Your task to perform on an android device: What's on my calendar tomorrow? Image 0: 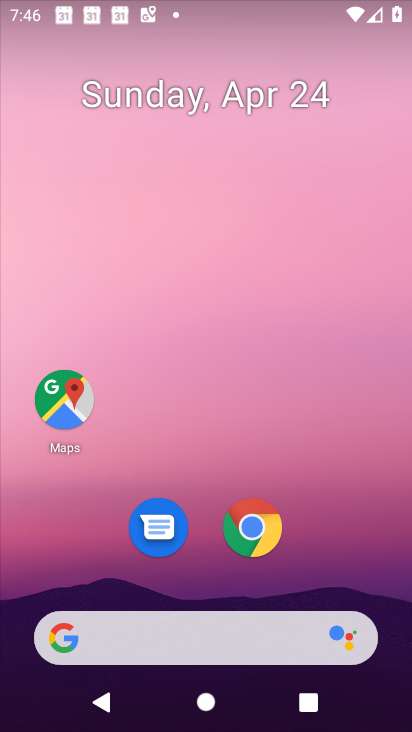
Step 0: drag from (364, 568) to (282, 74)
Your task to perform on an android device: What's on my calendar tomorrow? Image 1: 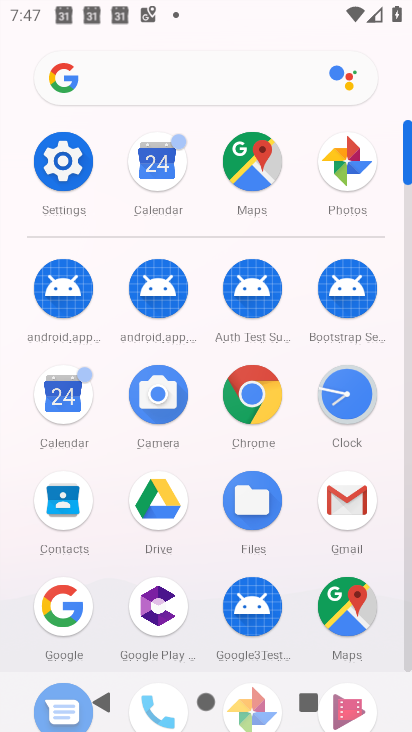
Step 1: click (70, 378)
Your task to perform on an android device: What's on my calendar tomorrow? Image 2: 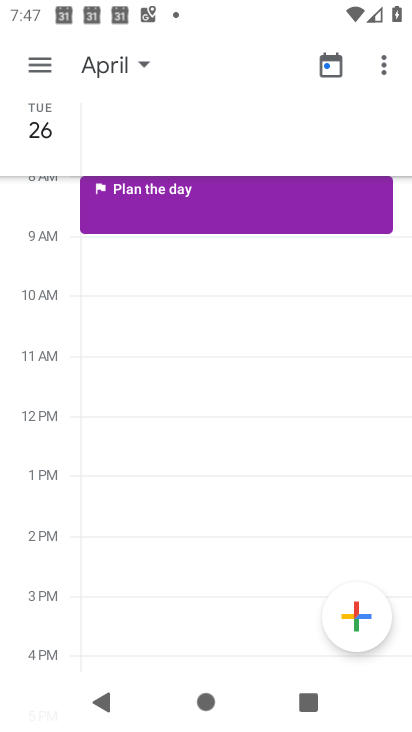
Step 2: click (116, 55)
Your task to perform on an android device: What's on my calendar tomorrow? Image 3: 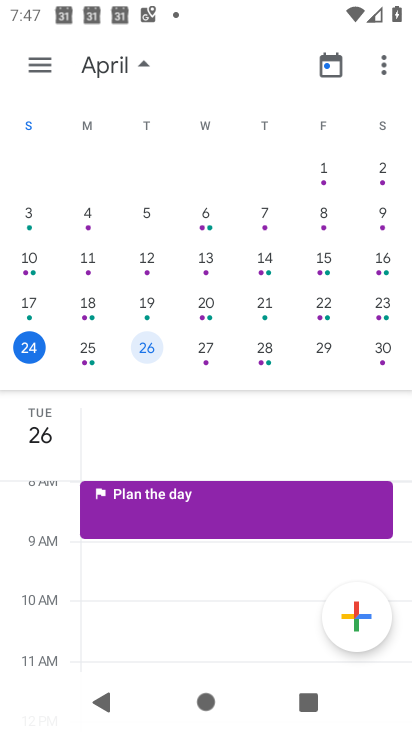
Step 3: click (135, 351)
Your task to perform on an android device: What's on my calendar tomorrow? Image 4: 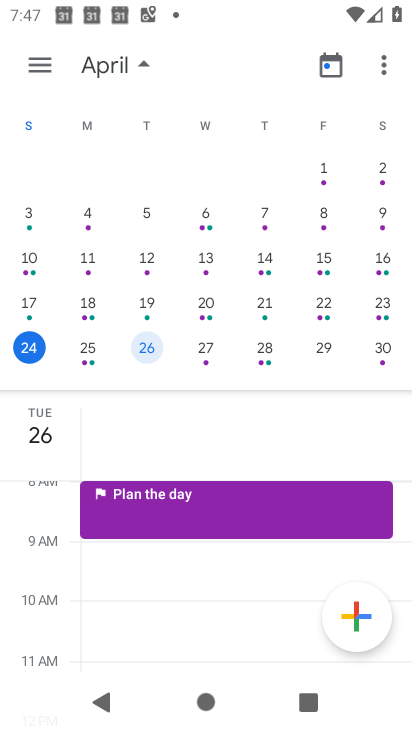
Step 4: click (129, 402)
Your task to perform on an android device: What's on my calendar tomorrow? Image 5: 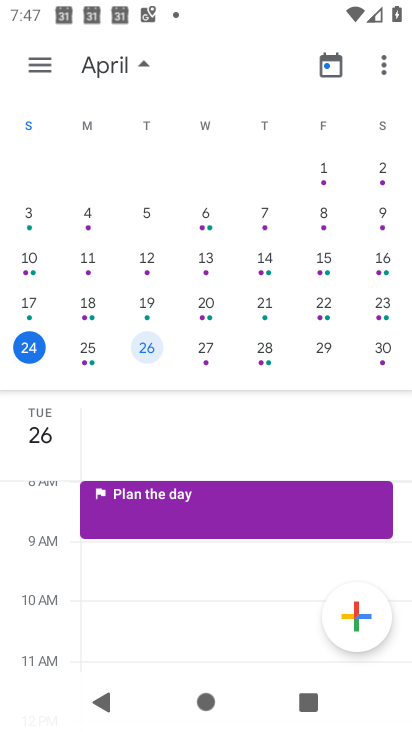
Step 5: click (172, 486)
Your task to perform on an android device: What's on my calendar tomorrow? Image 6: 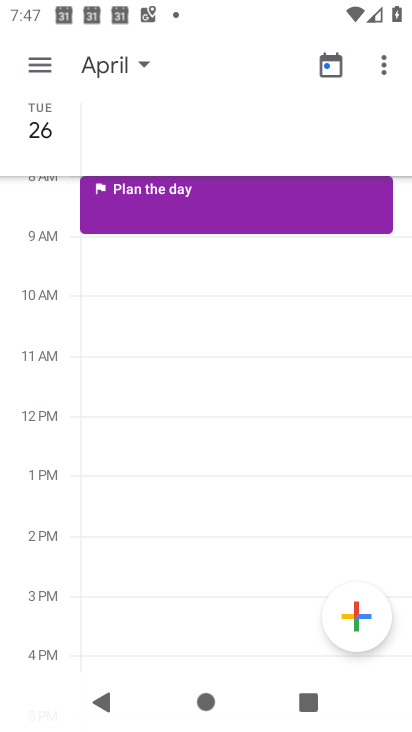
Step 6: click (40, 61)
Your task to perform on an android device: What's on my calendar tomorrow? Image 7: 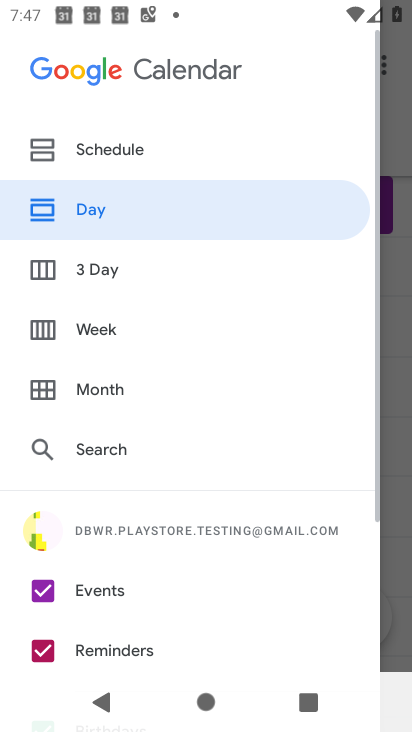
Step 7: click (75, 132)
Your task to perform on an android device: What's on my calendar tomorrow? Image 8: 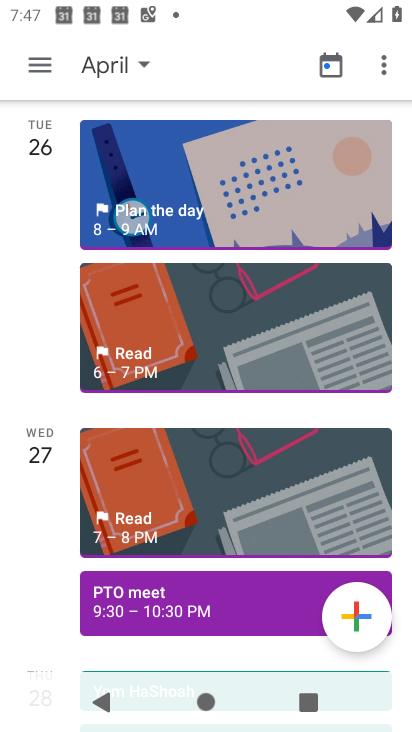
Step 8: click (153, 164)
Your task to perform on an android device: What's on my calendar tomorrow? Image 9: 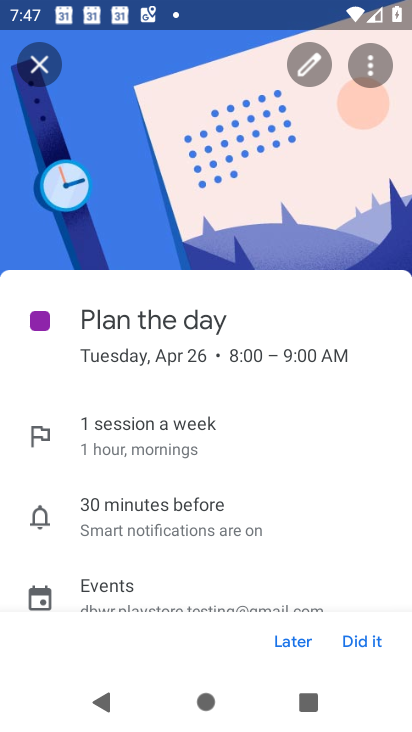
Step 9: task complete